Your task to perform on an android device: Open the stopwatch Image 0: 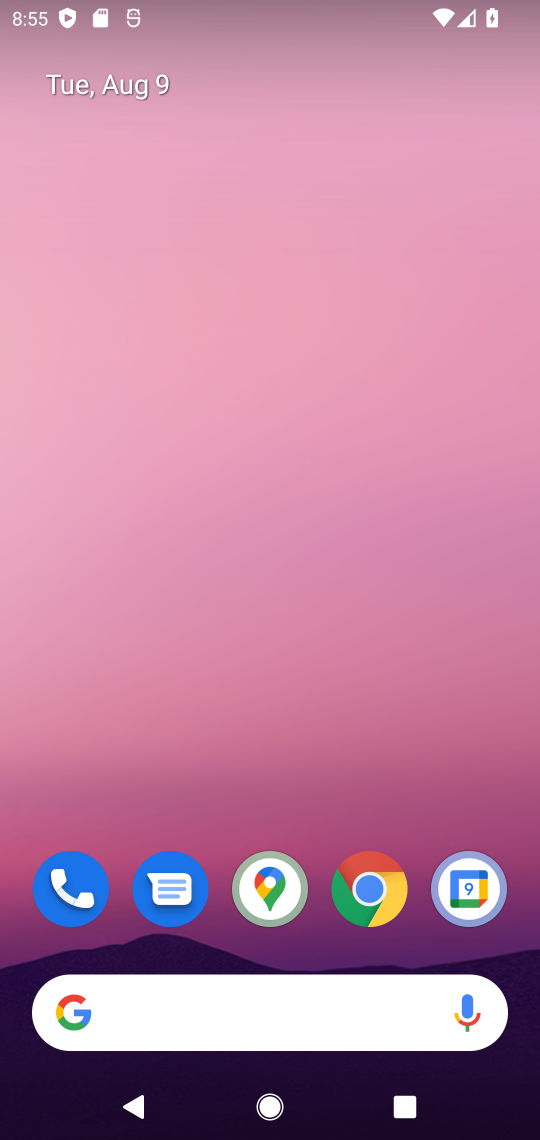
Step 0: drag from (225, 869) to (274, 41)
Your task to perform on an android device: Open the stopwatch Image 1: 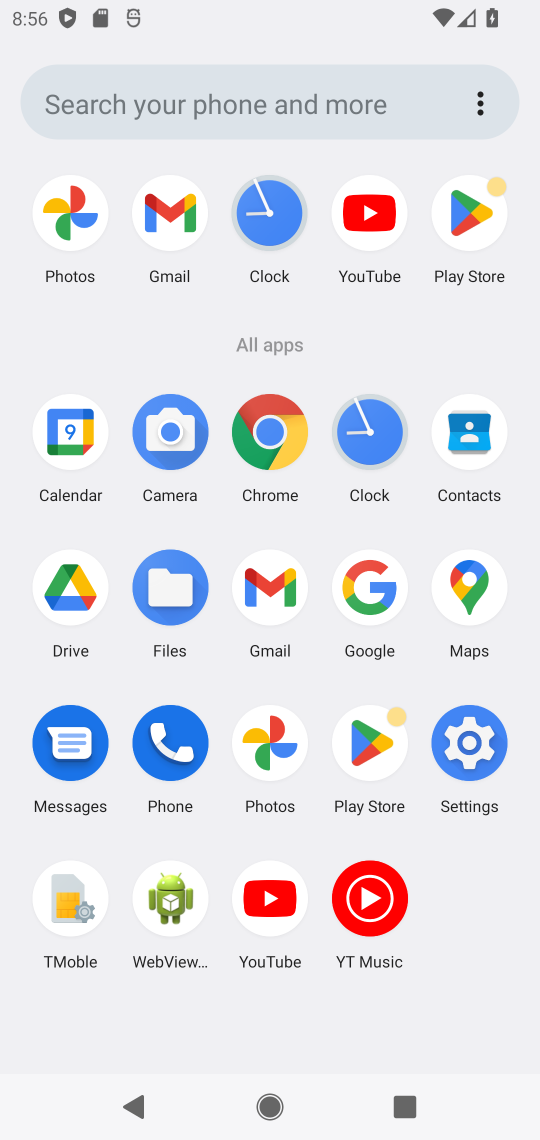
Step 1: click (374, 448)
Your task to perform on an android device: Open the stopwatch Image 2: 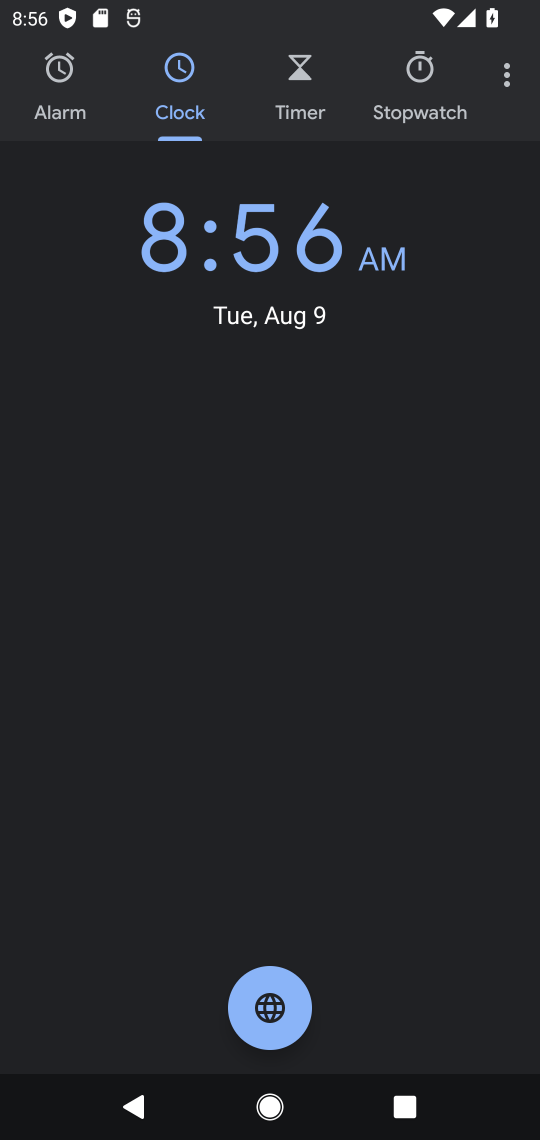
Step 2: click (392, 106)
Your task to perform on an android device: Open the stopwatch Image 3: 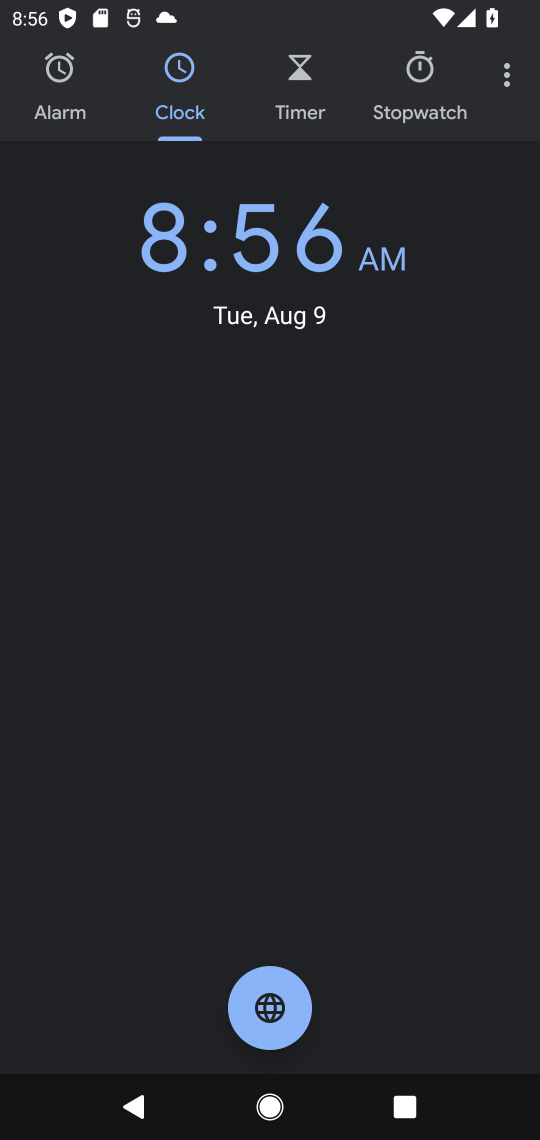
Step 3: task complete